Your task to perform on an android device: change timer sound Image 0: 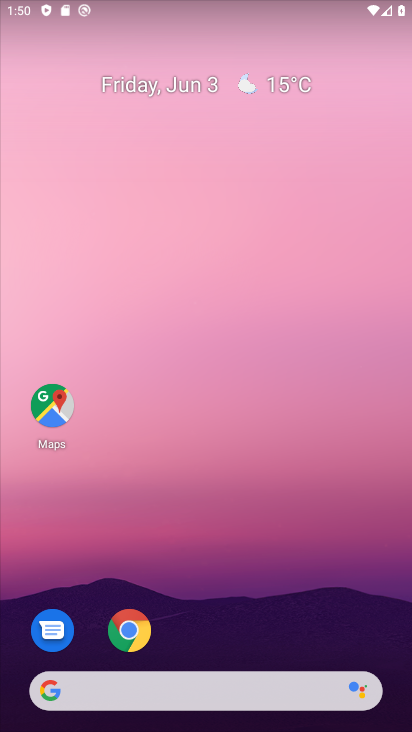
Step 0: press home button
Your task to perform on an android device: change timer sound Image 1: 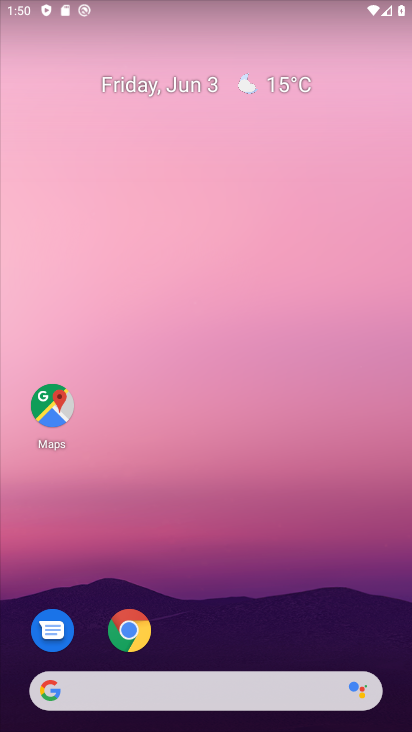
Step 1: drag from (398, 688) to (260, 63)
Your task to perform on an android device: change timer sound Image 2: 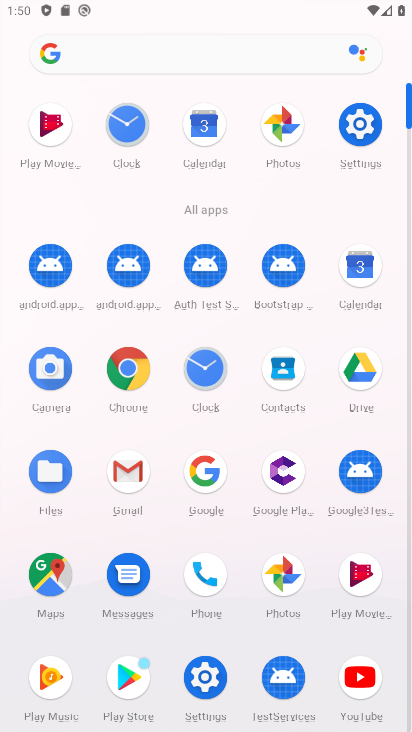
Step 2: click (210, 367)
Your task to perform on an android device: change timer sound Image 3: 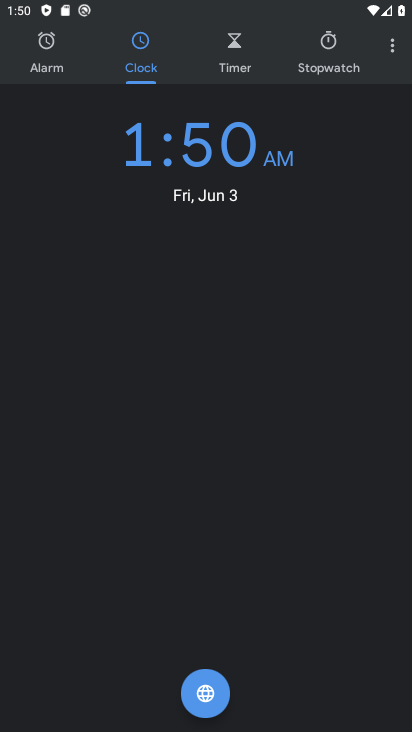
Step 3: drag from (387, 28) to (335, 109)
Your task to perform on an android device: change timer sound Image 4: 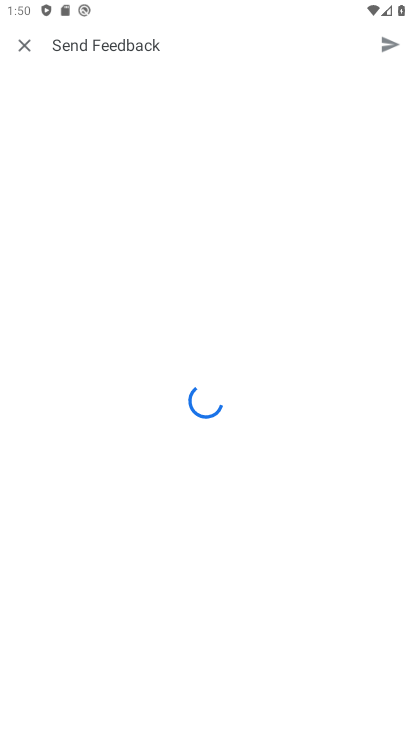
Step 4: click (23, 52)
Your task to perform on an android device: change timer sound Image 5: 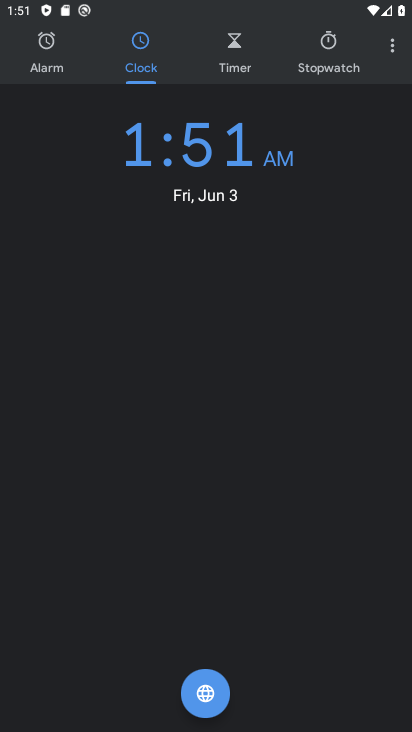
Step 5: click (383, 44)
Your task to perform on an android device: change timer sound Image 6: 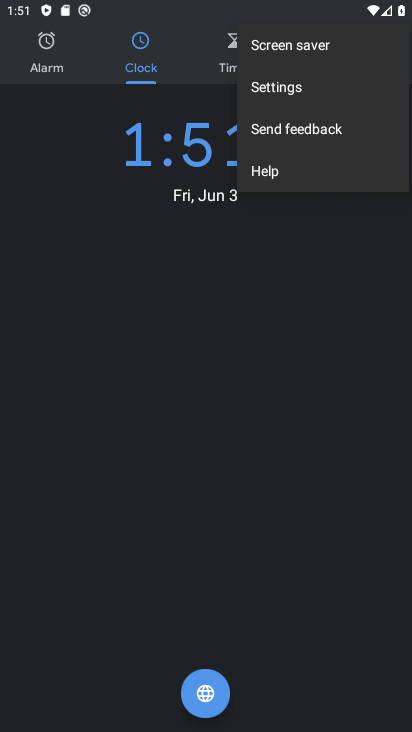
Step 6: click (305, 93)
Your task to perform on an android device: change timer sound Image 7: 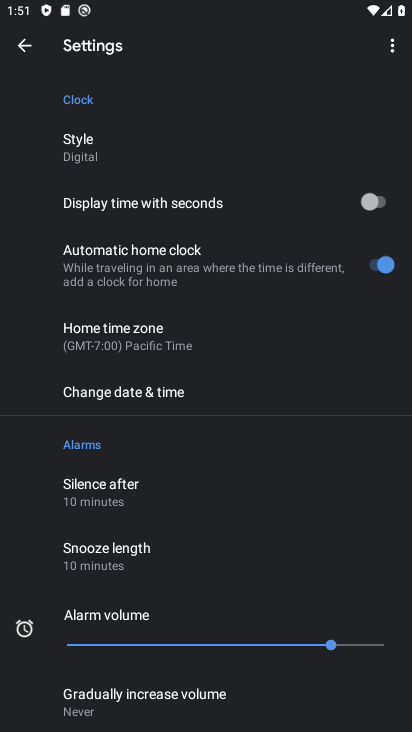
Step 7: drag from (145, 691) to (130, 374)
Your task to perform on an android device: change timer sound Image 8: 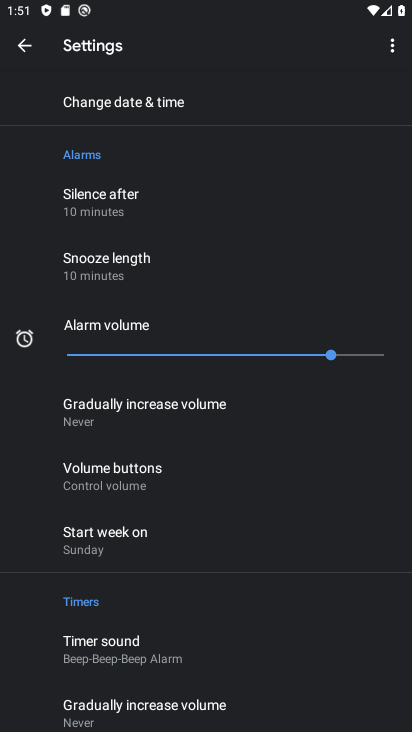
Step 8: click (141, 637)
Your task to perform on an android device: change timer sound Image 9: 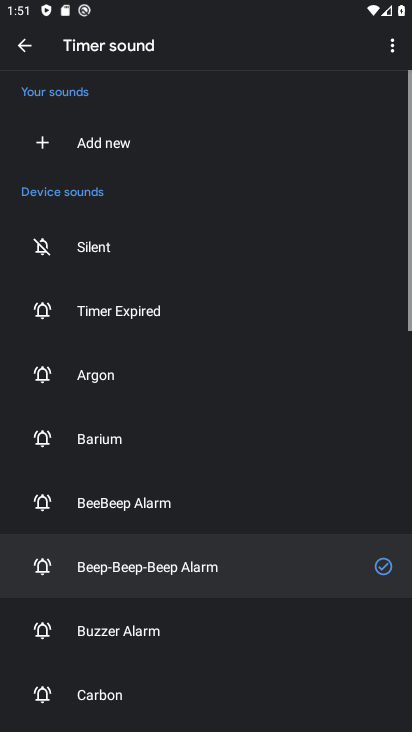
Step 9: click (118, 443)
Your task to perform on an android device: change timer sound Image 10: 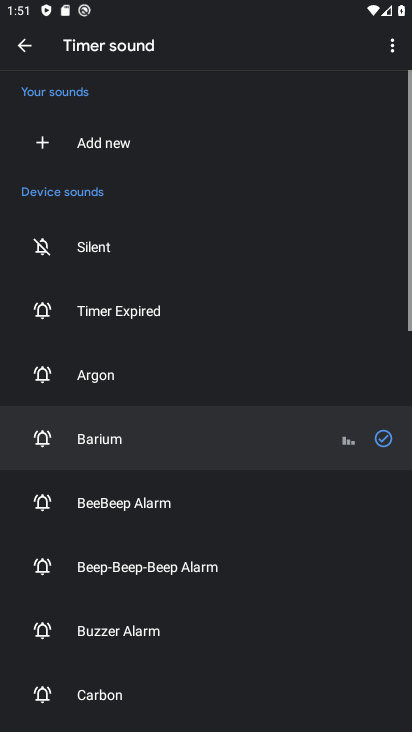
Step 10: task complete